Your task to perform on an android device: turn notification dots on Image 0: 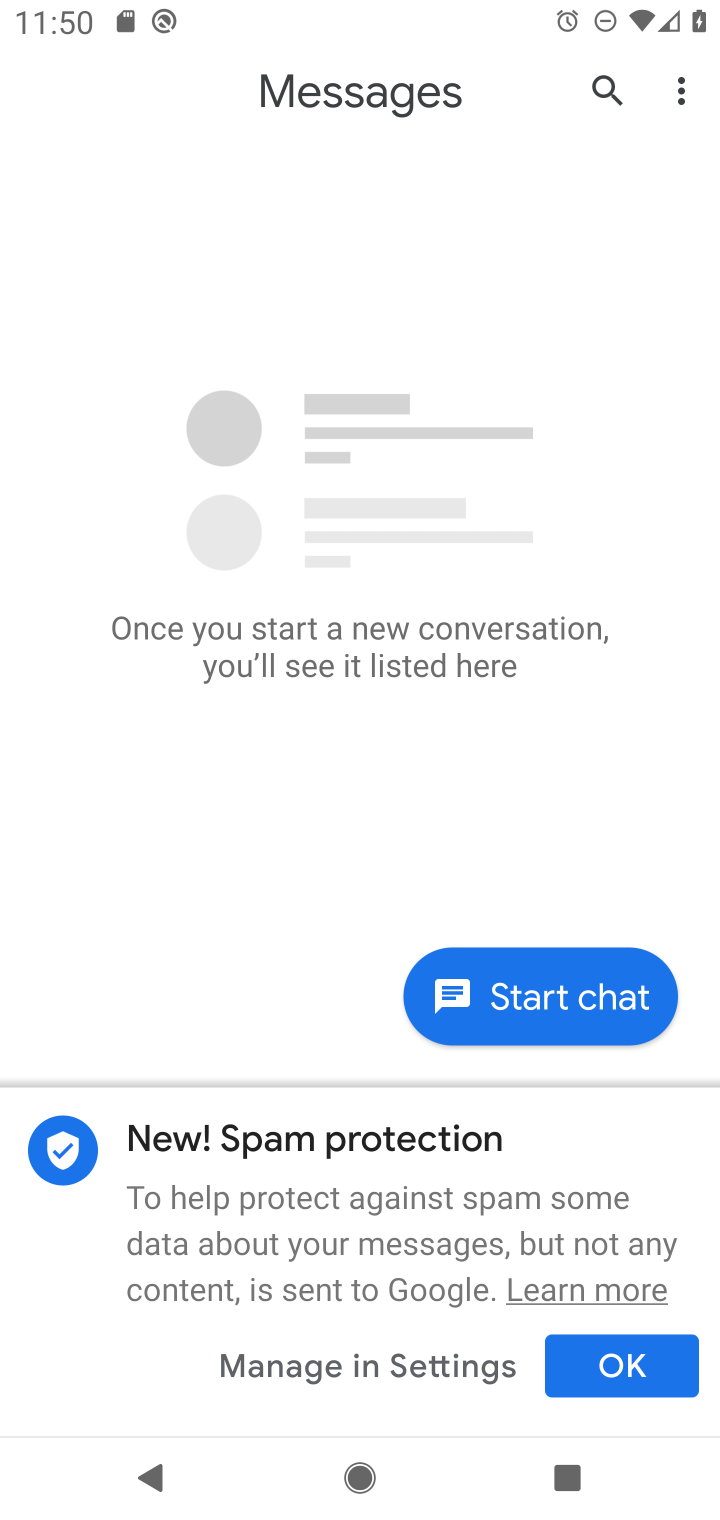
Step 0: press home button
Your task to perform on an android device: turn notification dots on Image 1: 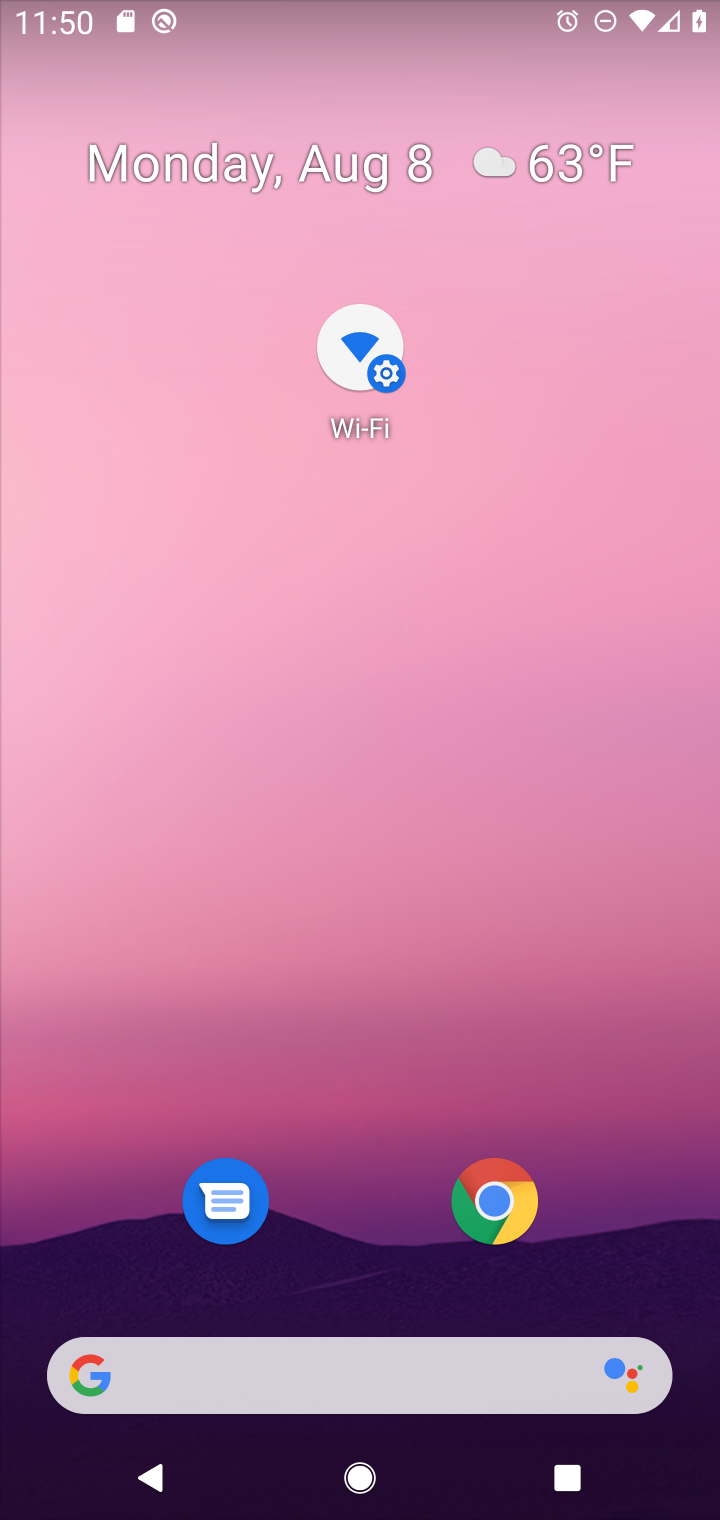
Step 1: drag from (376, 1141) to (586, 143)
Your task to perform on an android device: turn notification dots on Image 2: 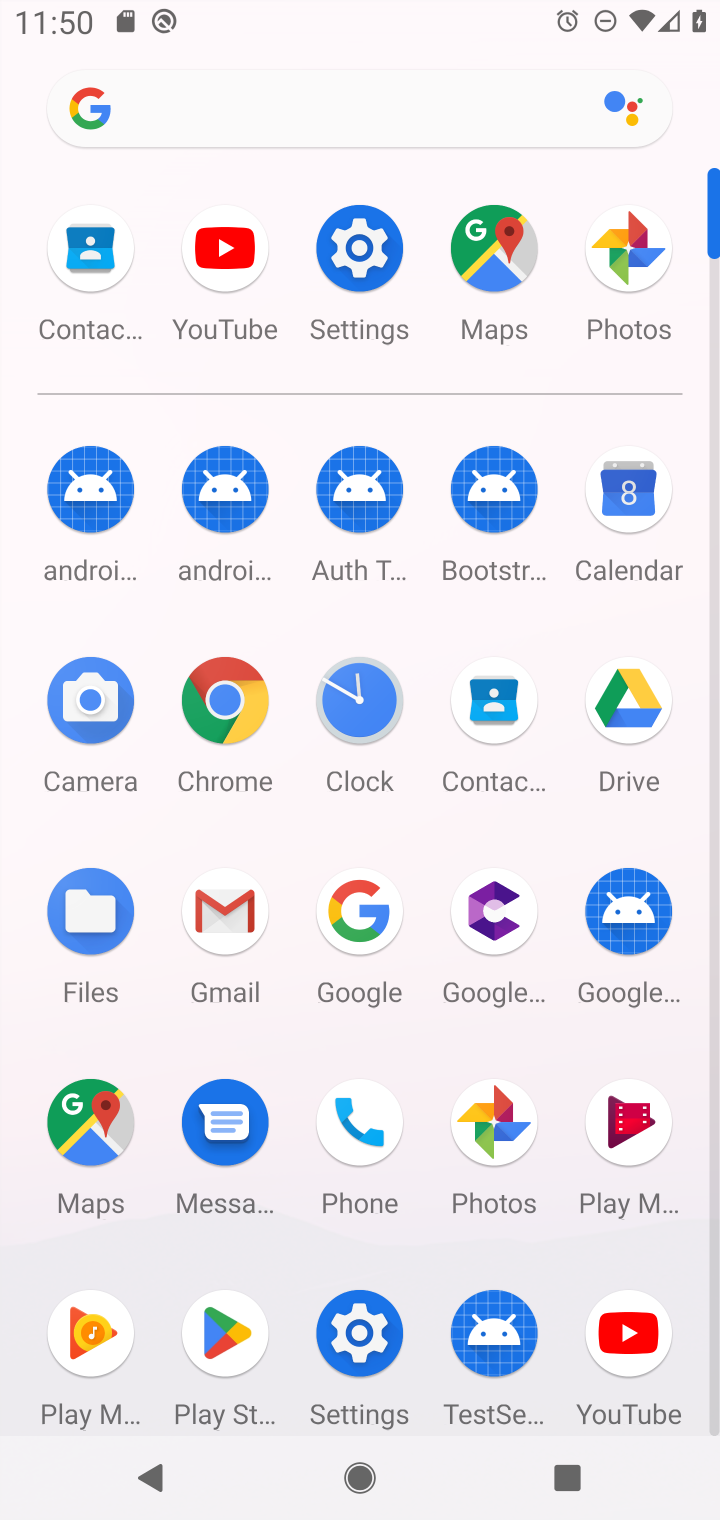
Step 2: click (374, 262)
Your task to perform on an android device: turn notification dots on Image 3: 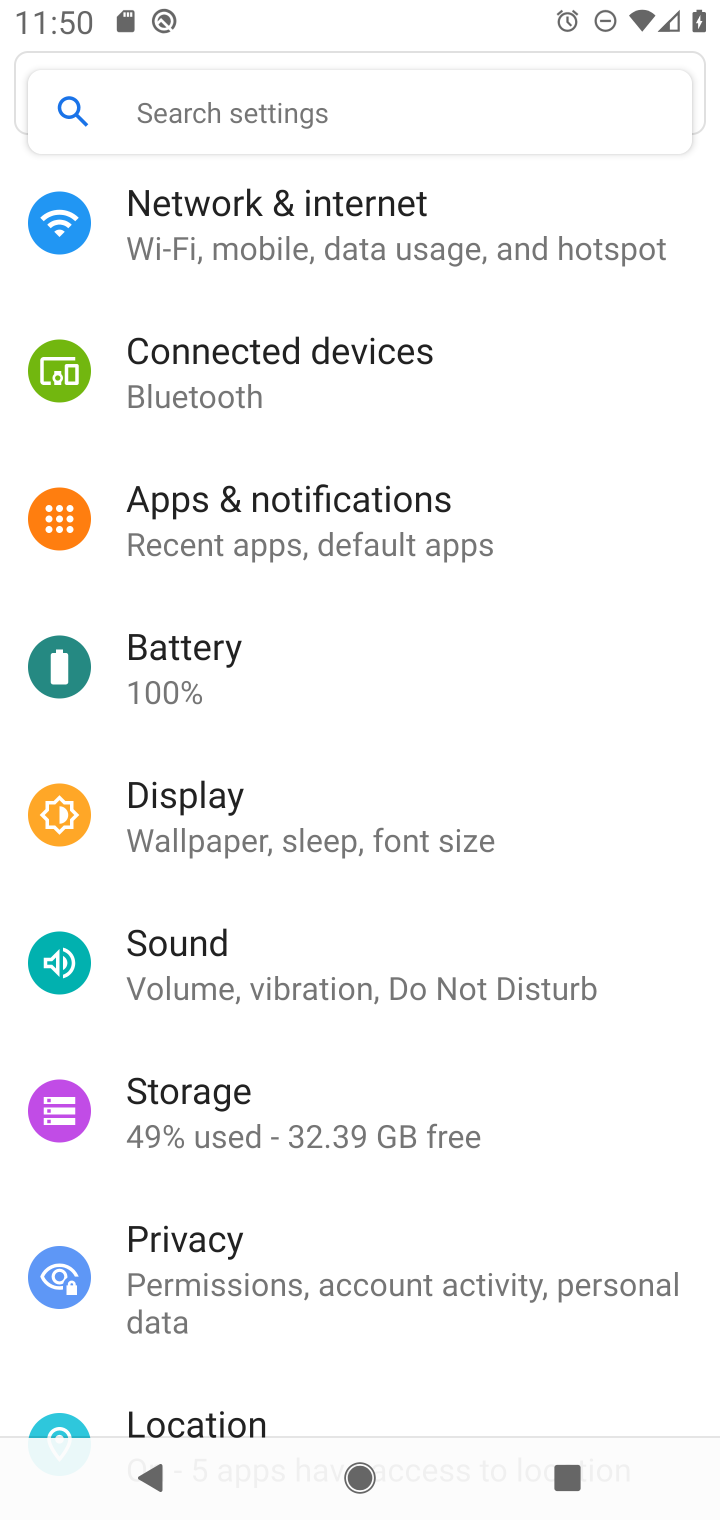
Step 3: drag from (580, 1161) to (611, 653)
Your task to perform on an android device: turn notification dots on Image 4: 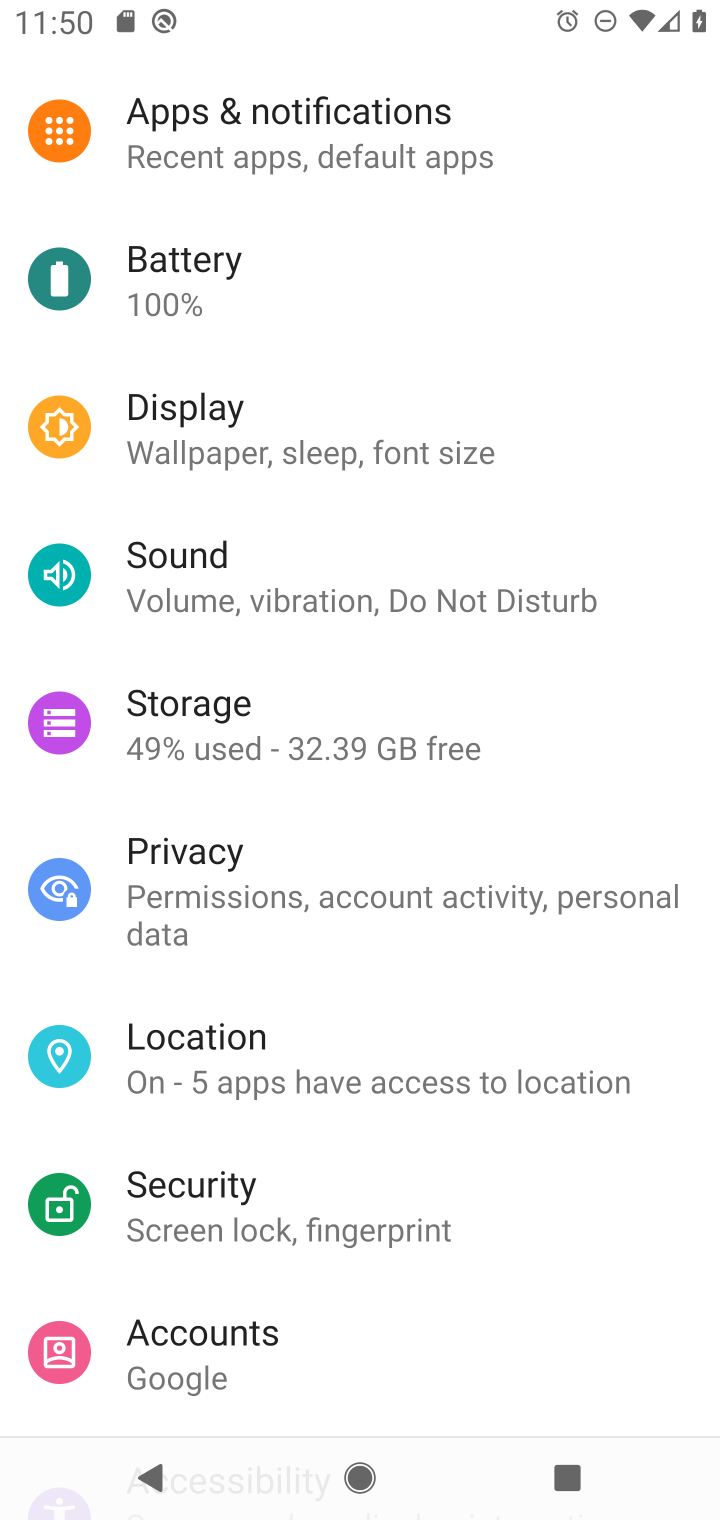
Step 4: drag from (628, 252) to (658, 642)
Your task to perform on an android device: turn notification dots on Image 5: 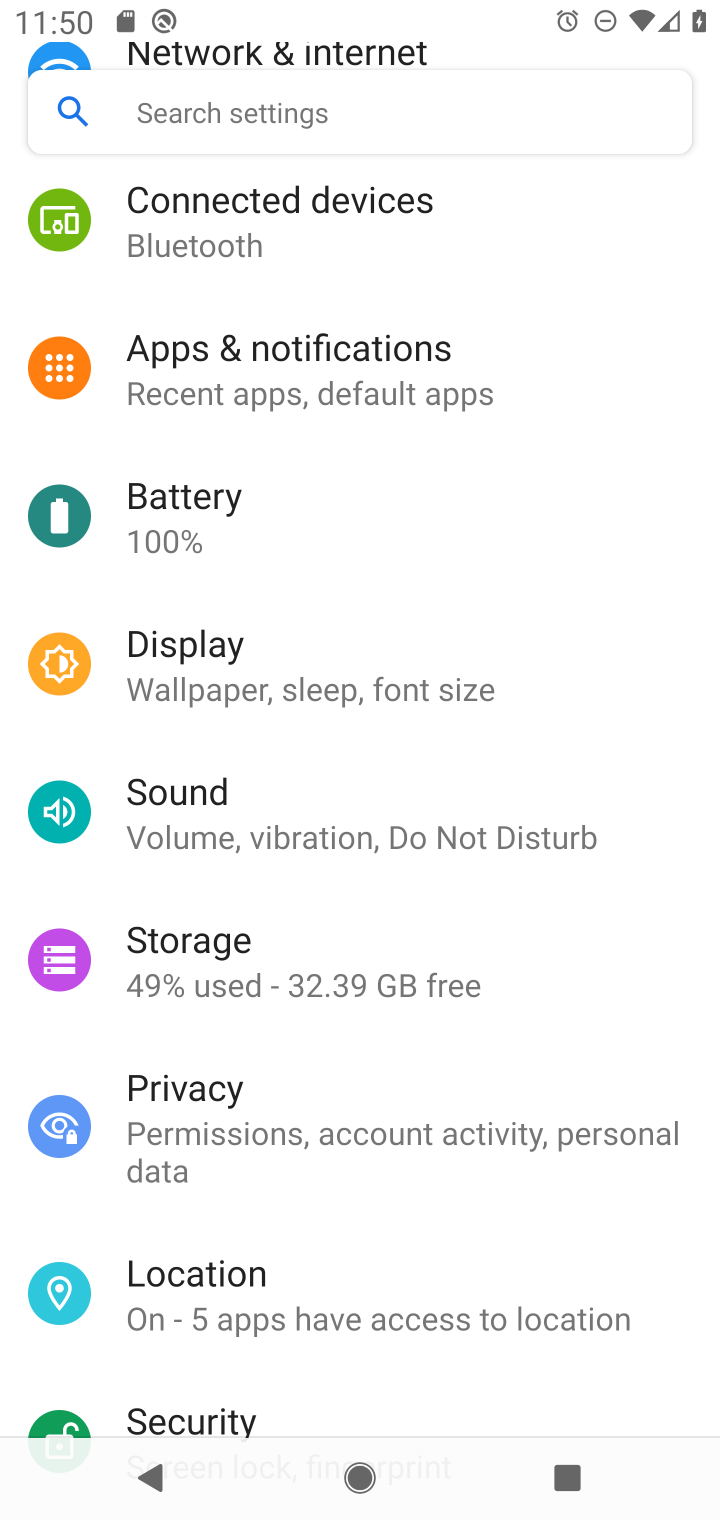
Step 5: click (396, 376)
Your task to perform on an android device: turn notification dots on Image 6: 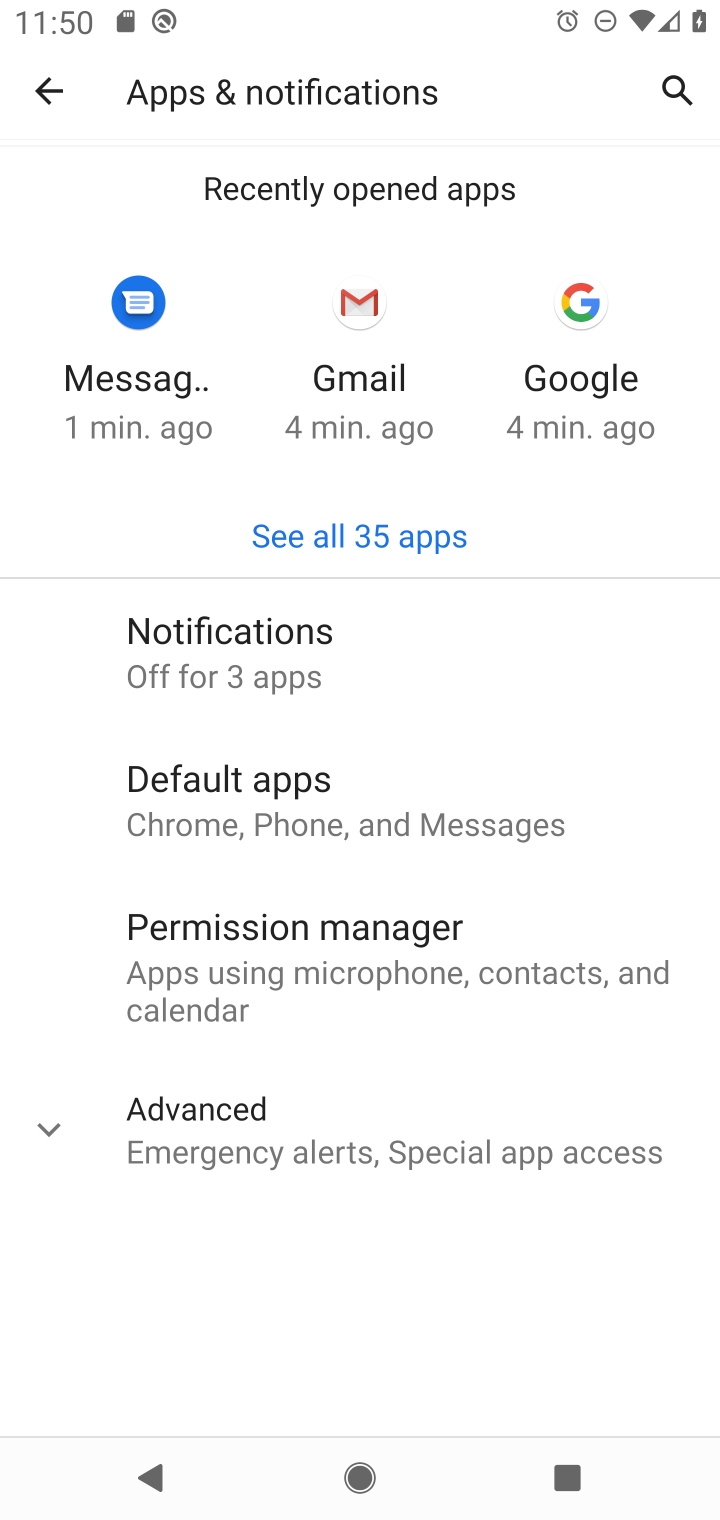
Step 6: click (356, 1111)
Your task to perform on an android device: turn notification dots on Image 7: 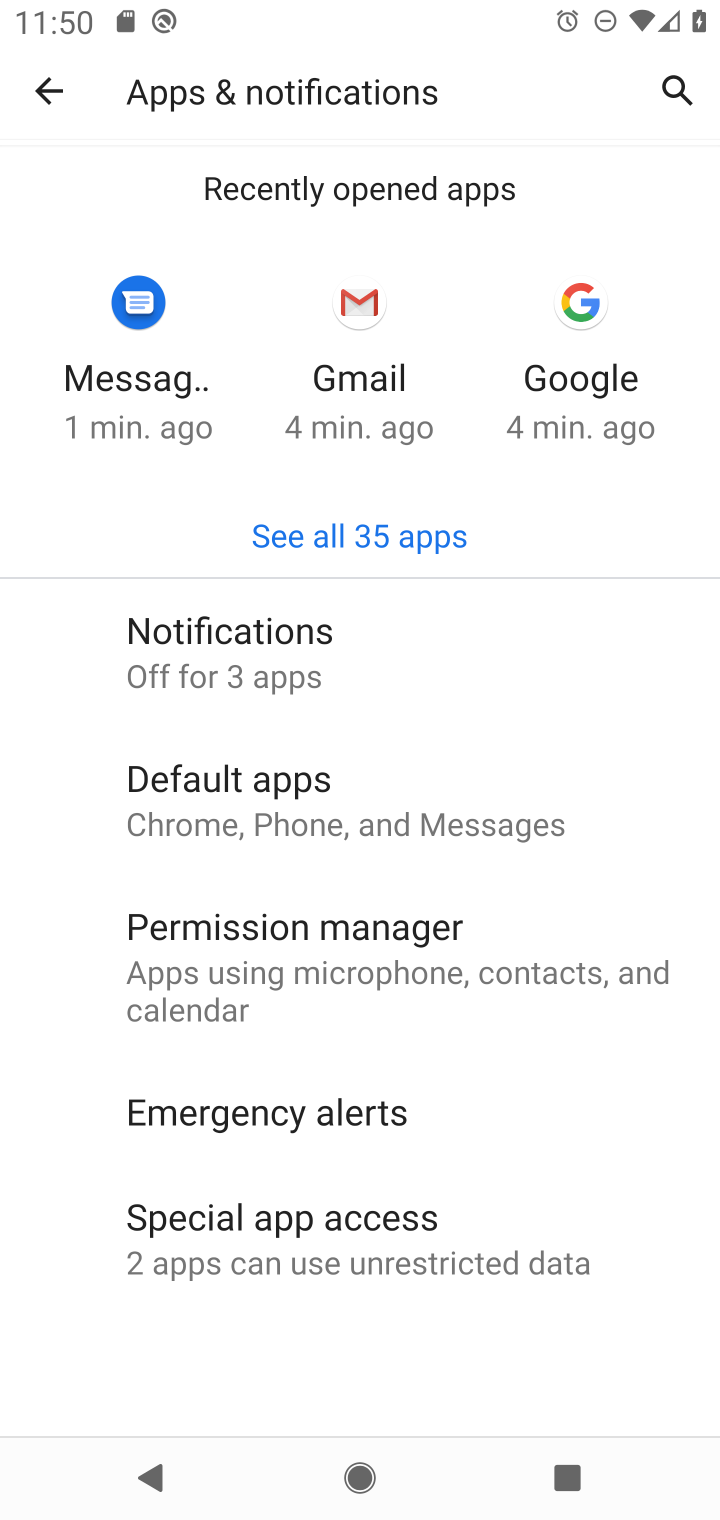
Step 7: drag from (578, 1132) to (563, 600)
Your task to perform on an android device: turn notification dots on Image 8: 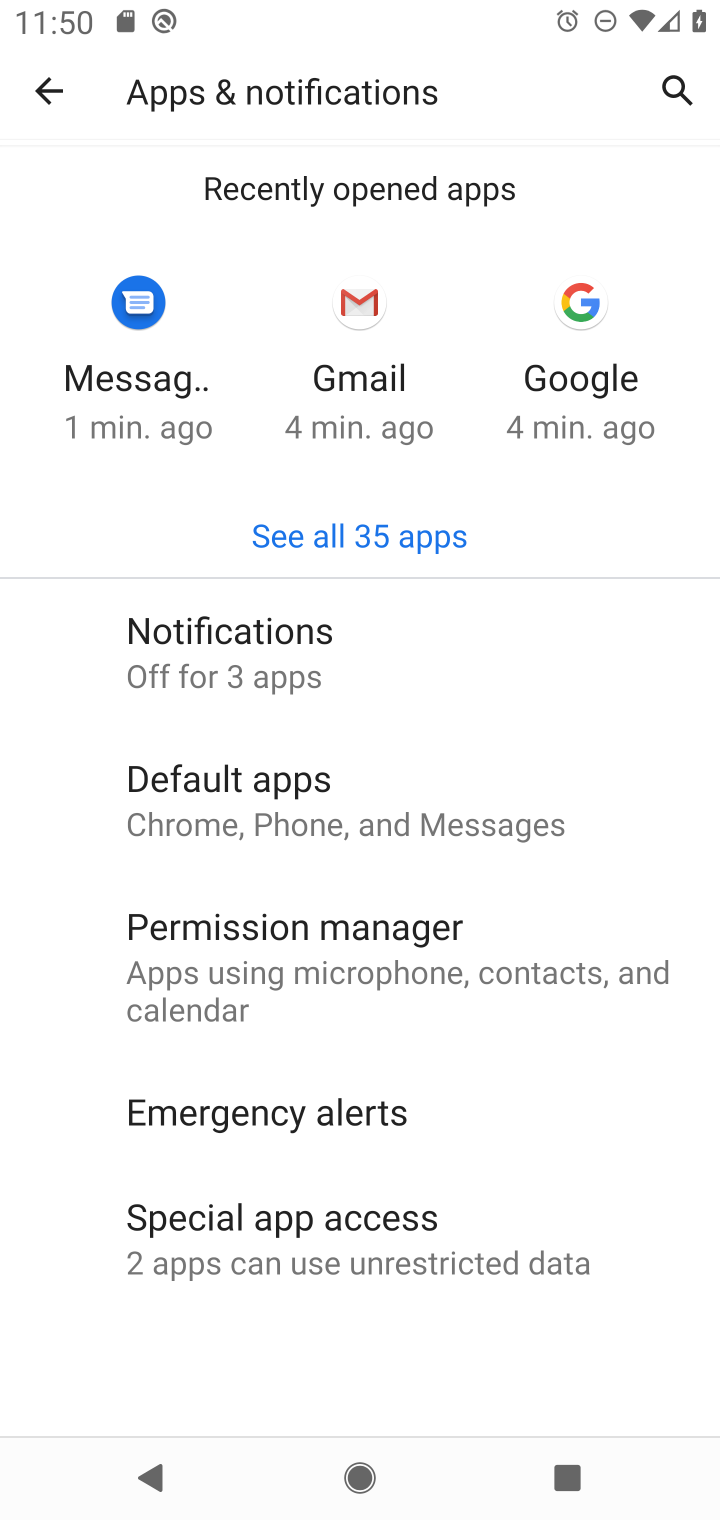
Step 8: click (427, 1256)
Your task to perform on an android device: turn notification dots on Image 9: 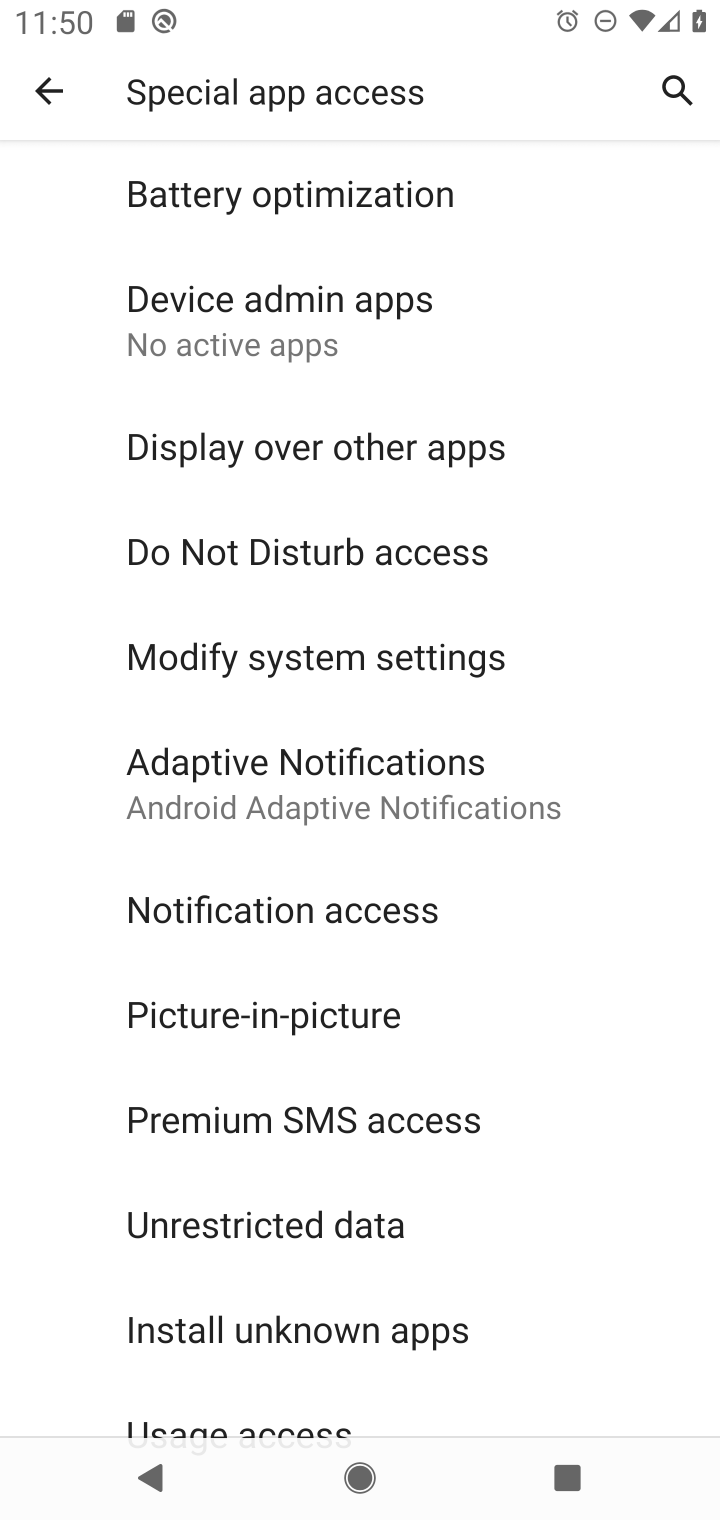
Step 9: drag from (594, 1198) to (634, 633)
Your task to perform on an android device: turn notification dots on Image 10: 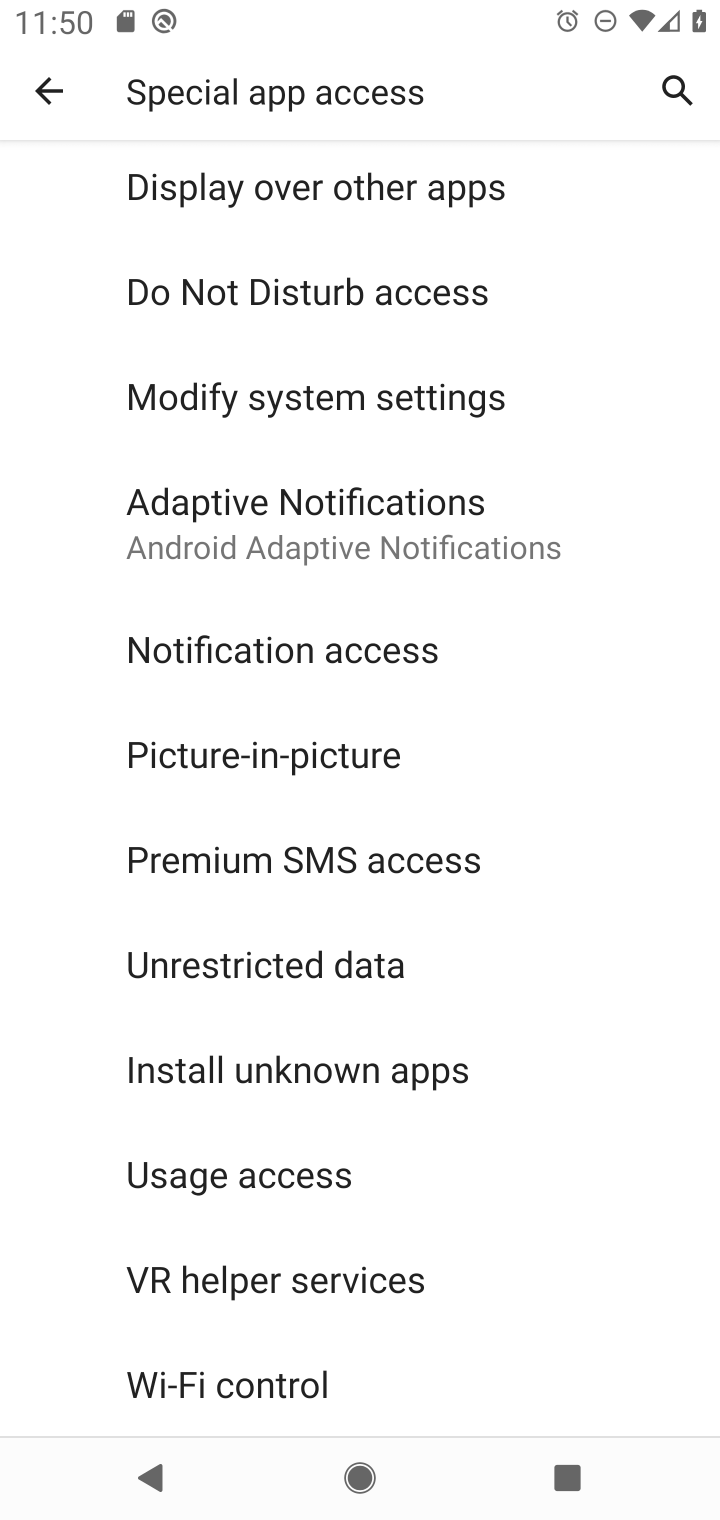
Step 10: drag from (555, 1152) to (580, 858)
Your task to perform on an android device: turn notification dots on Image 11: 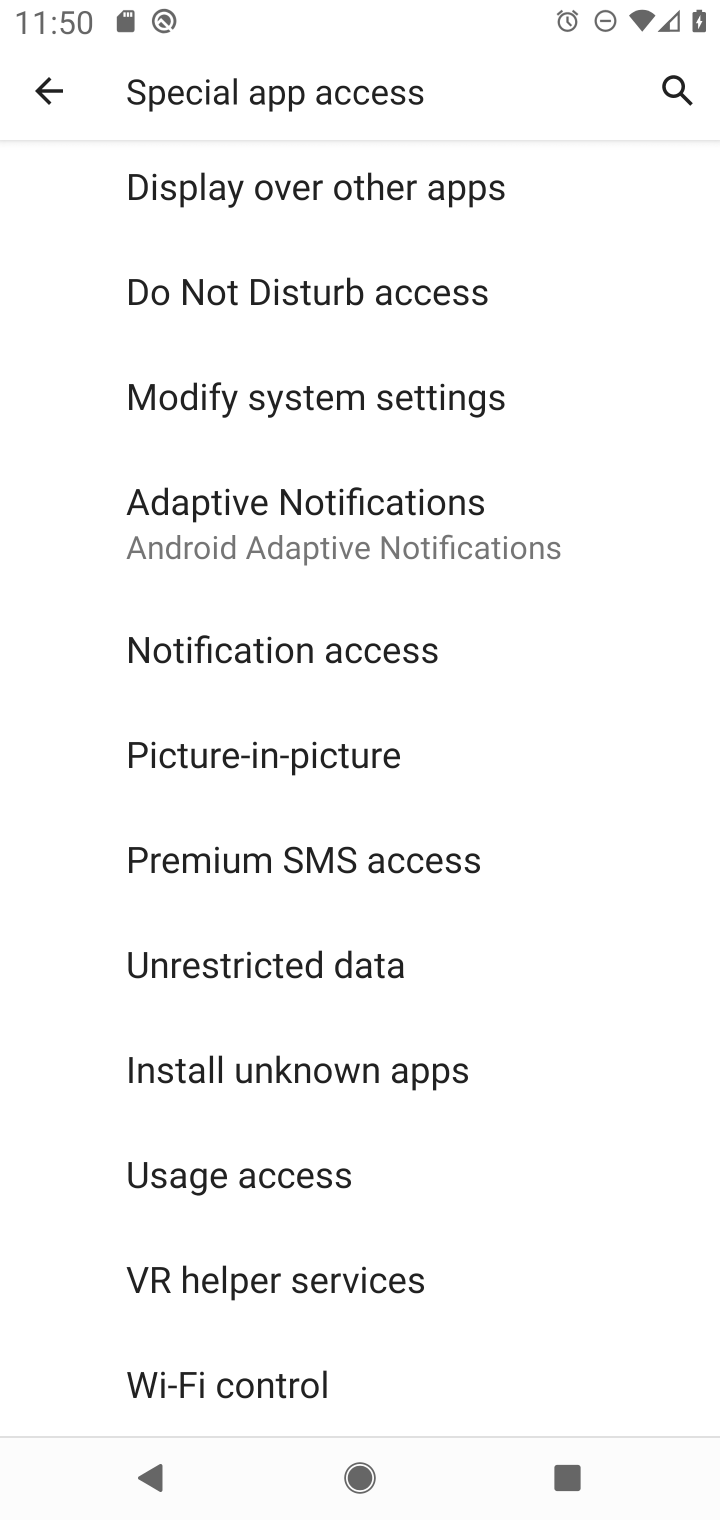
Step 11: click (38, 77)
Your task to perform on an android device: turn notification dots on Image 12: 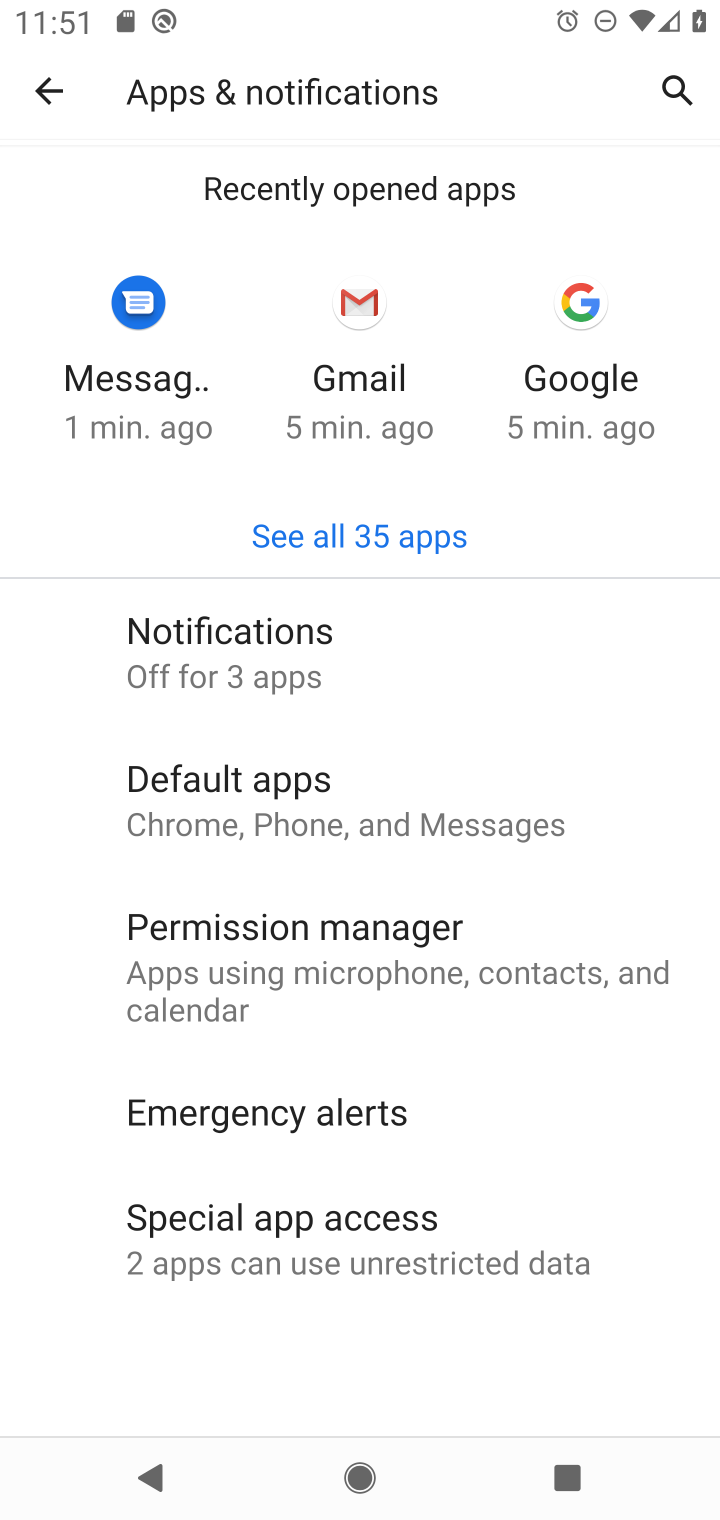
Step 12: click (275, 646)
Your task to perform on an android device: turn notification dots on Image 13: 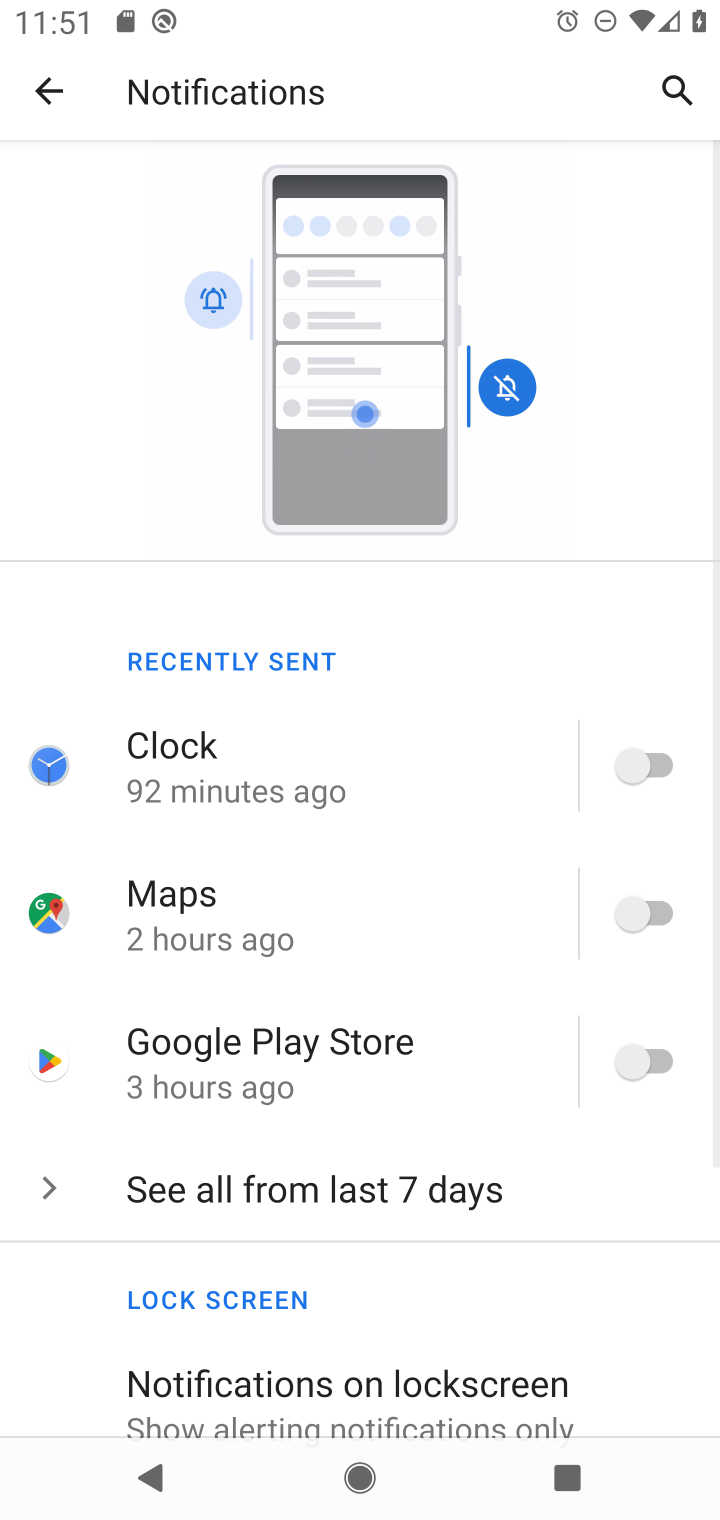
Step 13: drag from (489, 1108) to (501, 692)
Your task to perform on an android device: turn notification dots on Image 14: 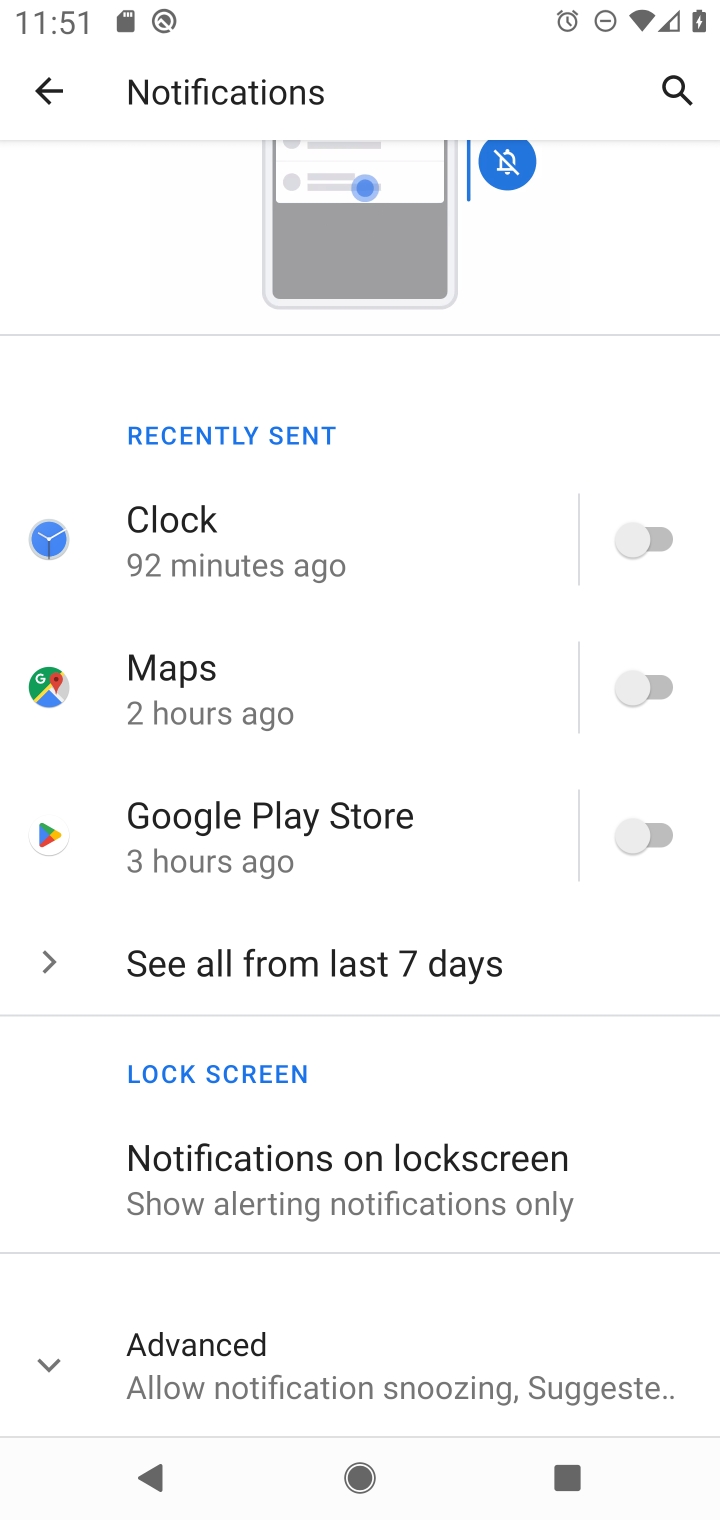
Step 14: click (290, 1353)
Your task to perform on an android device: turn notification dots on Image 15: 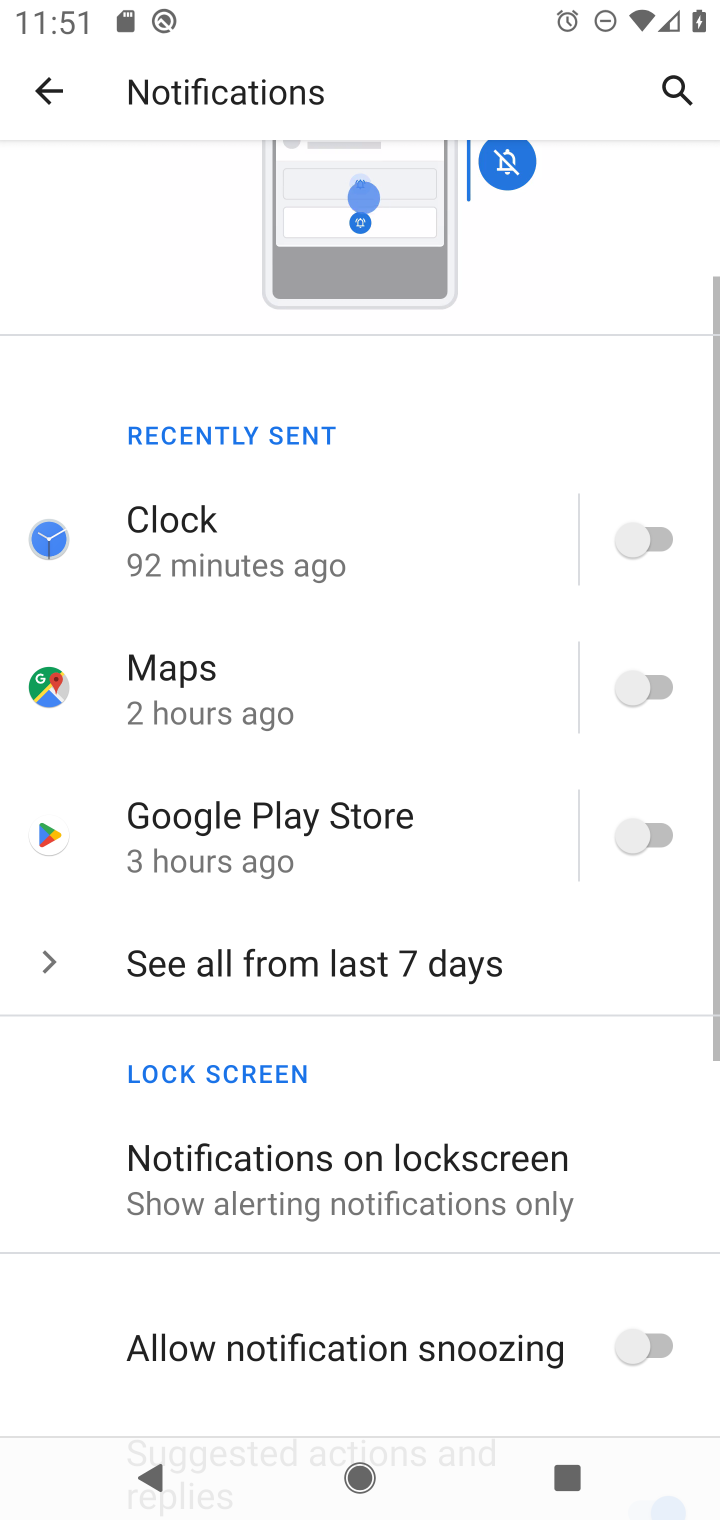
Step 15: task complete